Your task to perform on an android device: Search for vegetarian restaurants on Maps Image 0: 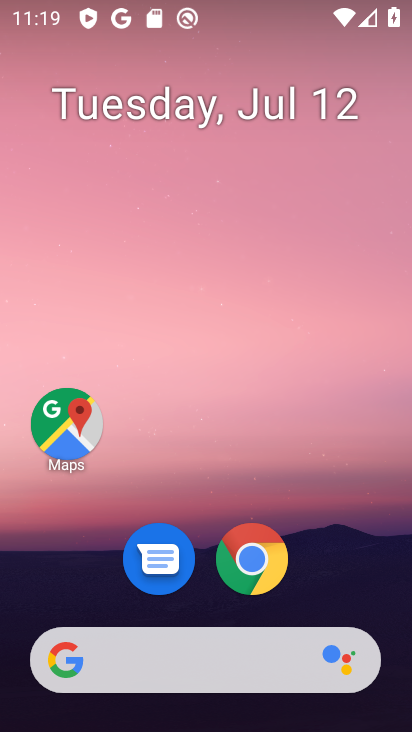
Step 0: drag from (334, 596) to (361, 88)
Your task to perform on an android device: Search for vegetarian restaurants on Maps Image 1: 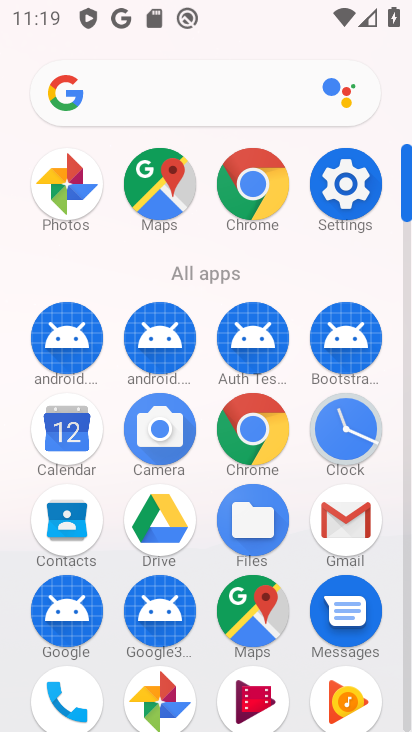
Step 1: drag from (386, 559) to (381, 207)
Your task to perform on an android device: Search for vegetarian restaurants on Maps Image 2: 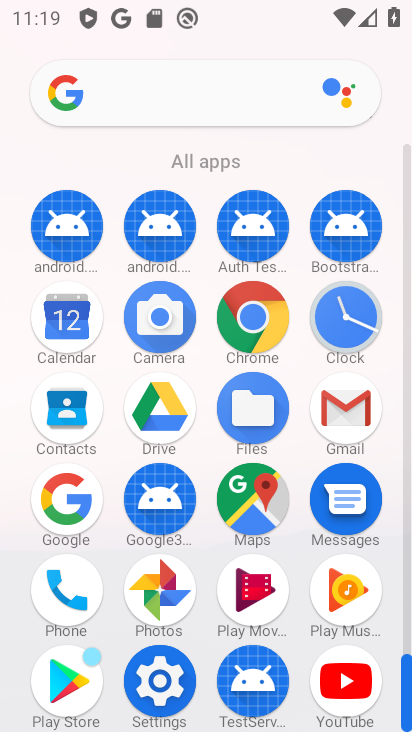
Step 2: click (262, 506)
Your task to perform on an android device: Search for vegetarian restaurants on Maps Image 3: 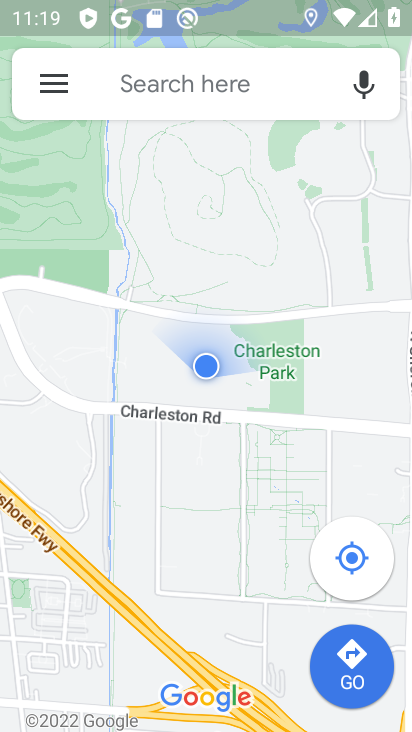
Step 3: click (241, 85)
Your task to perform on an android device: Search for vegetarian restaurants on Maps Image 4: 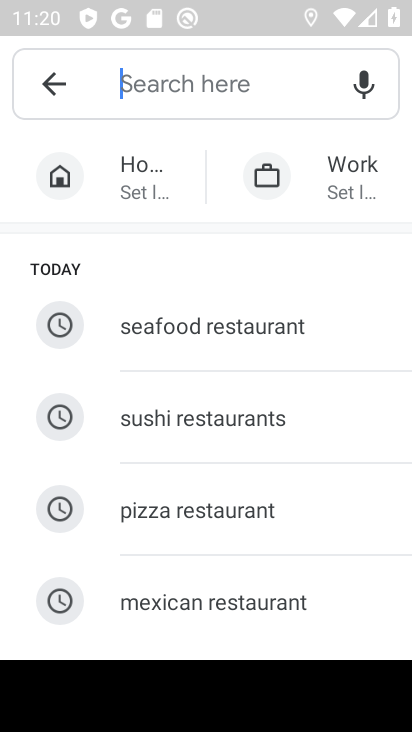
Step 4: type "vegetrain restaurants"
Your task to perform on an android device: Search for vegetarian restaurants on Maps Image 5: 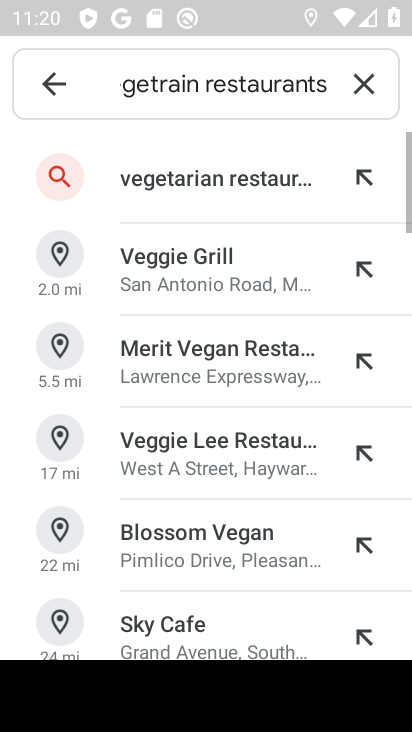
Step 5: click (245, 190)
Your task to perform on an android device: Search for vegetarian restaurants on Maps Image 6: 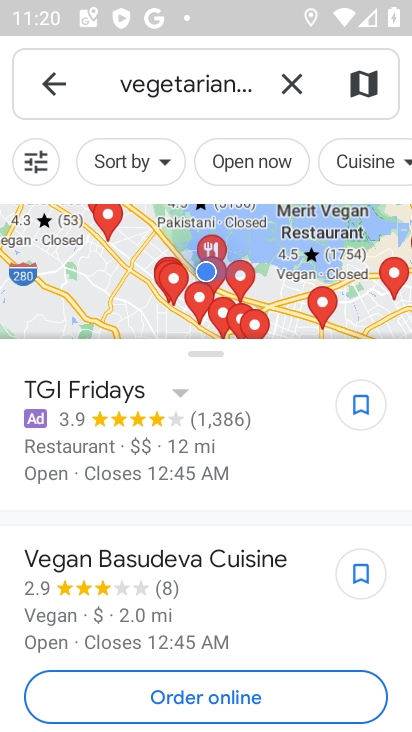
Step 6: task complete